Your task to perform on an android device: Open Yahoo.com Image 0: 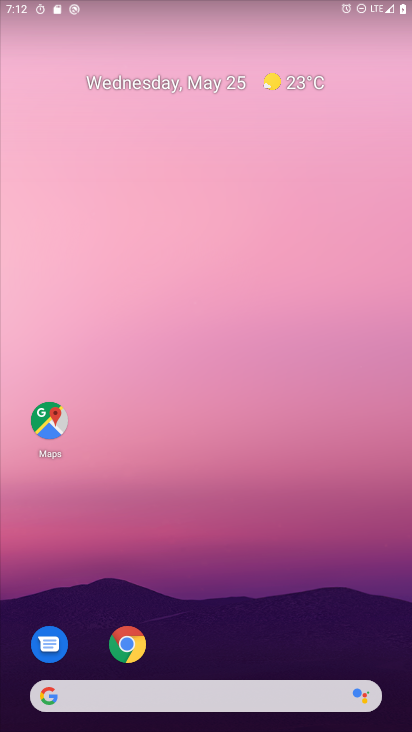
Step 0: drag from (350, 644) to (219, 17)
Your task to perform on an android device: Open Yahoo.com Image 1: 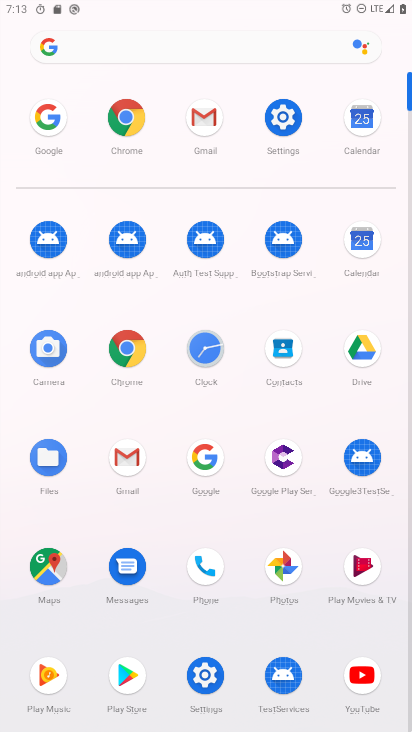
Step 1: click (203, 473)
Your task to perform on an android device: Open Yahoo.com Image 2: 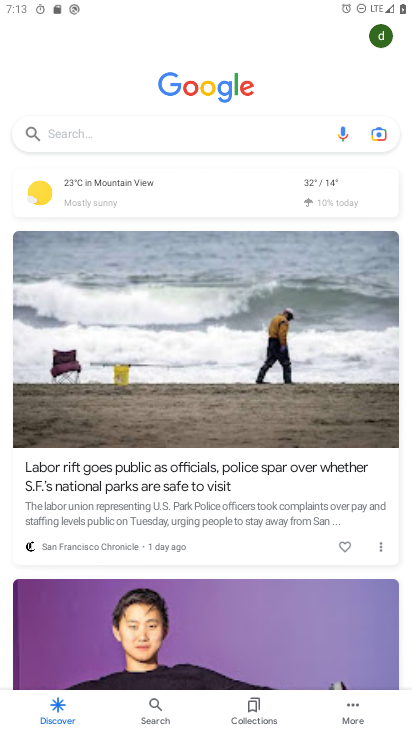
Step 2: click (107, 134)
Your task to perform on an android device: Open Yahoo.com Image 3: 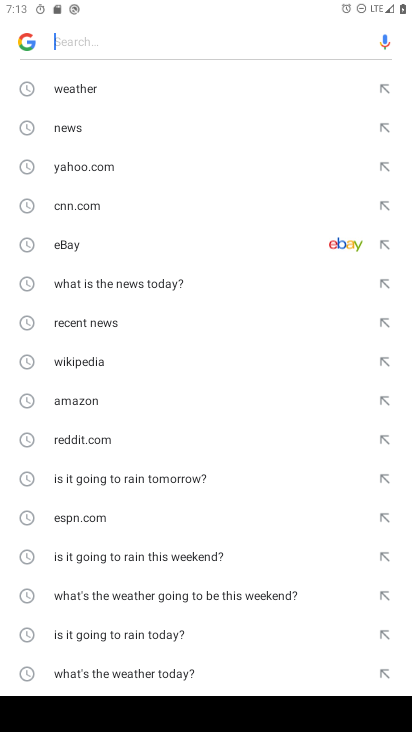
Step 3: click (109, 158)
Your task to perform on an android device: Open Yahoo.com Image 4: 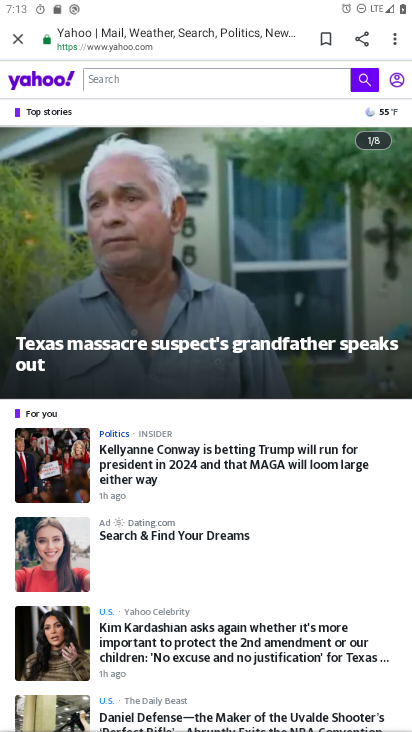
Step 4: task complete